Your task to perform on an android device: turn on javascript in the chrome app Image 0: 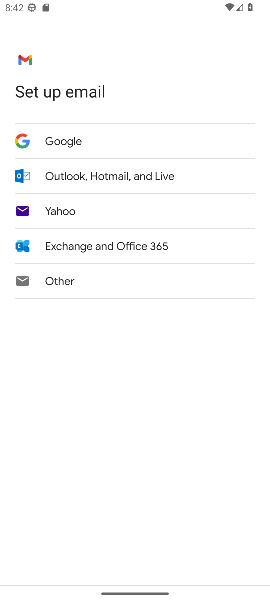
Step 0: press home button
Your task to perform on an android device: turn on javascript in the chrome app Image 1: 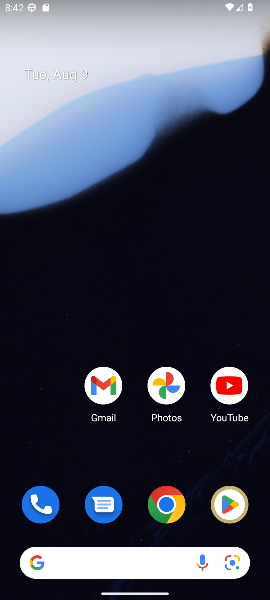
Step 1: click (171, 494)
Your task to perform on an android device: turn on javascript in the chrome app Image 2: 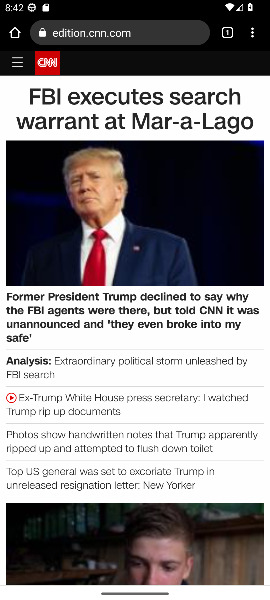
Step 2: click (248, 44)
Your task to perform on an android device: turn on javascript in the chrome app Image 3: 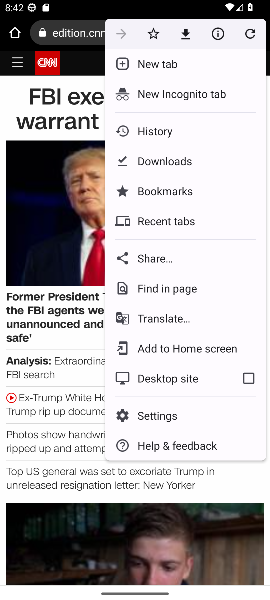
Step 3: click (166, 413)
Your task to perform on an android device: turn on javascript in the chrome app Image 4: 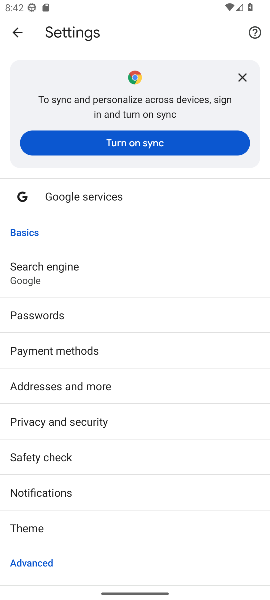
Step 4: drag from (156, 525) to (134, 315)
Your task to perform on an android device: turn on javascript in the chrome app Image 5: 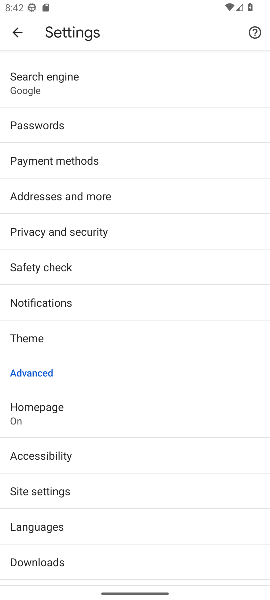
Step 5: click (29, 488)
Your task to perform on an android device: turn on javascript in the chrome app Image 6: 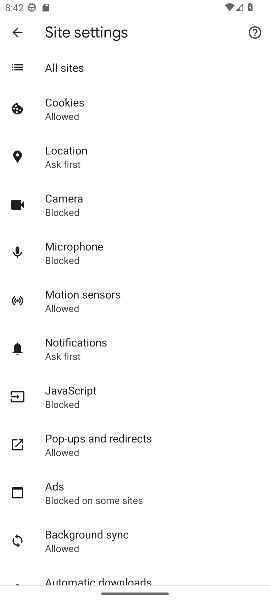
Step 6: click (60, 388)
Your task to perform on an android device: turn on javascript in the chrome app Image 7: 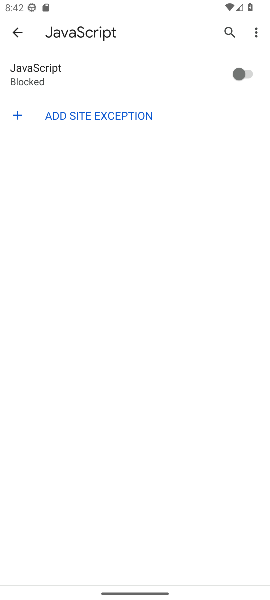
Step 7: click (240, 62)
Your task to perform on an android device: turn on javascript in the chrome app Image 8: 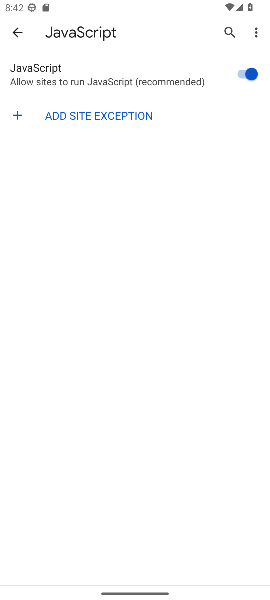
Step 8: task complete